Your task to perform on an android device: open a new tab in the chrome app Image 0: 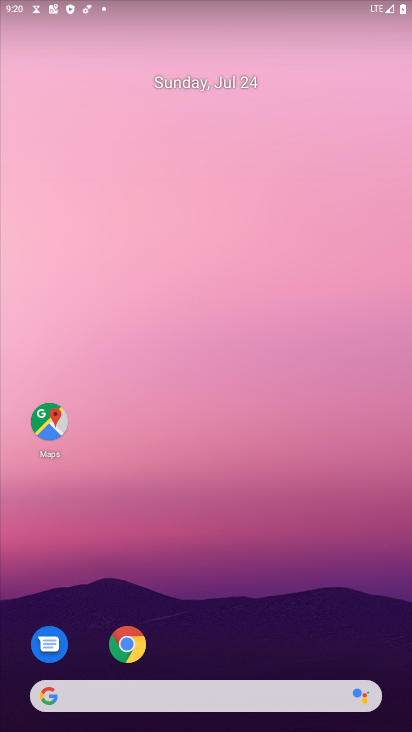
Step 0: drag from (272, 629) to (264, 213)
Your task to perform on an android device: open a new tab in the chrome app Image 1: 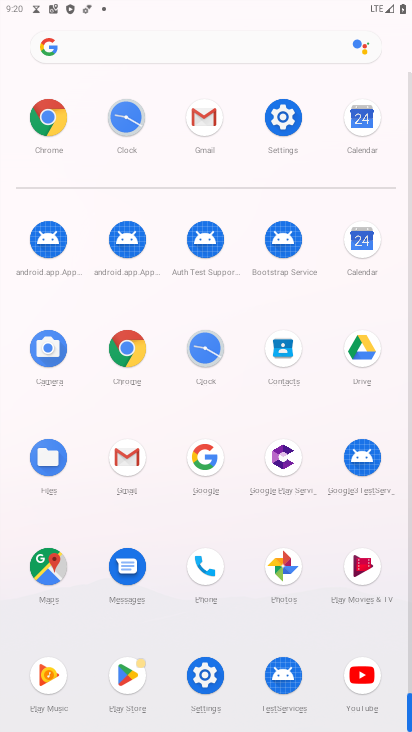
Step 1: click (129, 345)
Your task to perform on an android device: open a new tab in the chrome app Image 2: 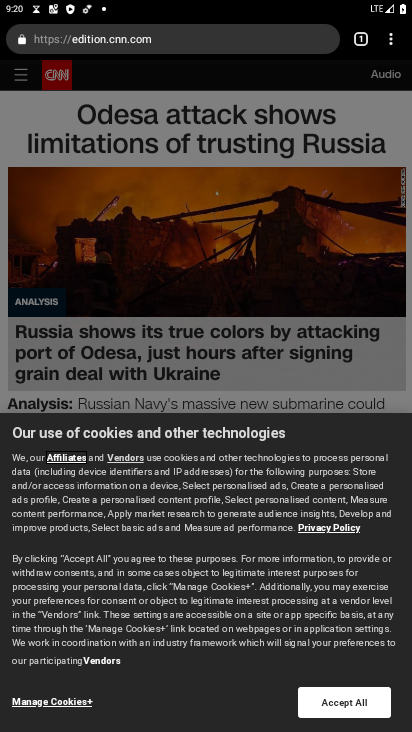
Step 2: task complete